Your task to perform on an android device: Clear the cart on bestbuy.com. Add razer deathadder to the cart on bestbuy.com Image 0: 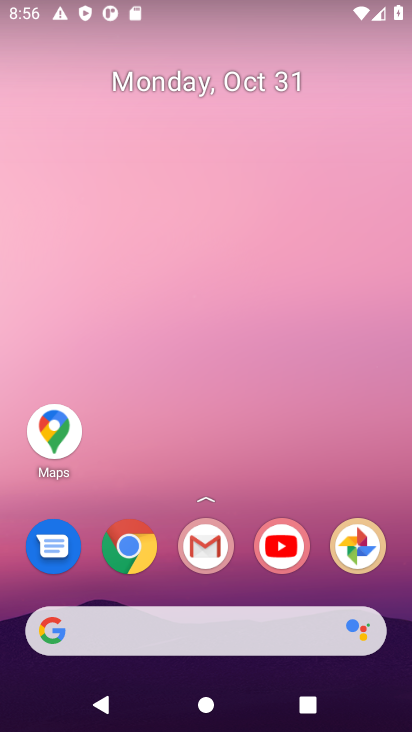
Step 0: click (128, 555)
Your task to perform on an android device: Clear the cart on bestbuy.com. Add razer deathadder to the cart on bestbuy.com Image 1: 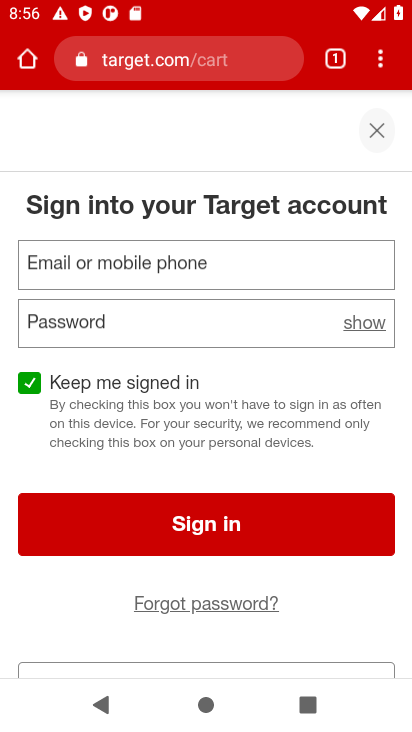
Step 1: click (165, 58)
Your task to perform on an android device: Clear the cart on bestbuy.com. Add razer deathadder to the cart on bestbuy.com Image 2: 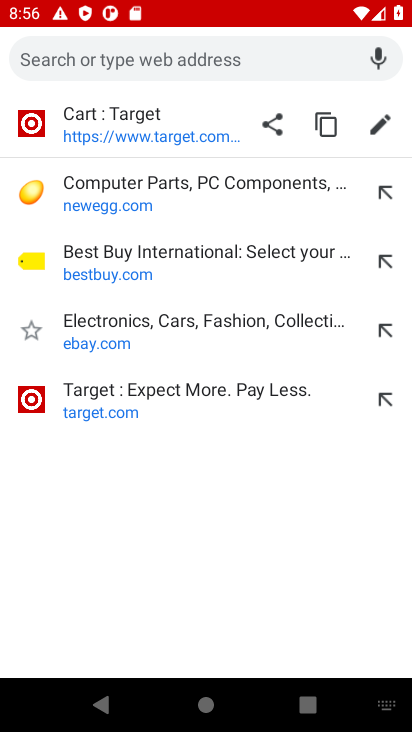
Step 2: type ""
Your task to perform on an android device: Clear the cart on bestbuy.com. Add razer deathadder to the cart on bestbuy.com Image 3: 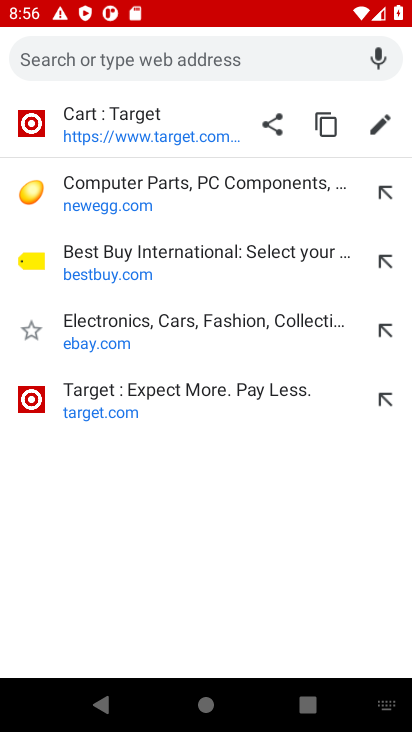
Step 3: type "bestbuy.com"
Your task to perform on an android device: Clear the cart on bestbuy.com. Add razer deathadder to the cart on bestbuy.com Image 4: 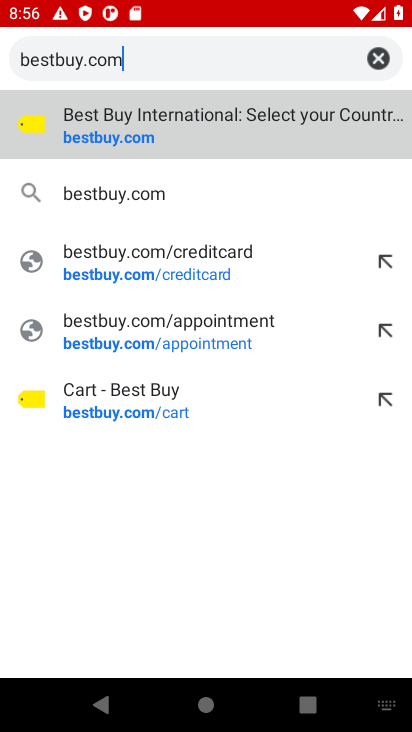
Step 4: press enter
Your task to perform on an android device: Clear the cart on bestbuy.com. Add razer deathadder to the cart on bestbuy.com Image 5: 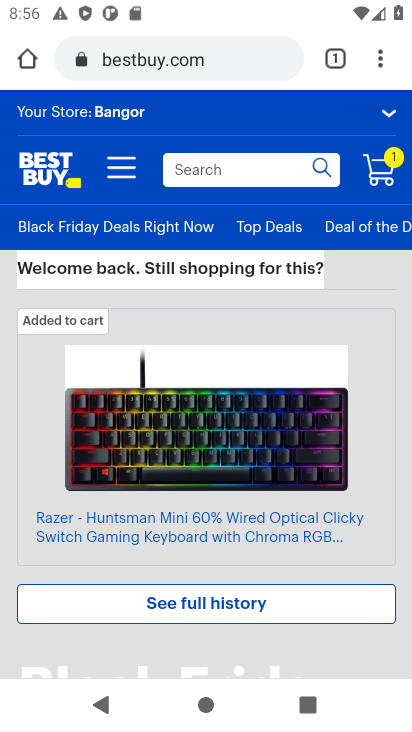
Step 5: click (380, 169)
Your task to perform on an android device: Clear the cart on bestbuy.com. Add razer deathadder to the cart on bestbuy.com Image 6: 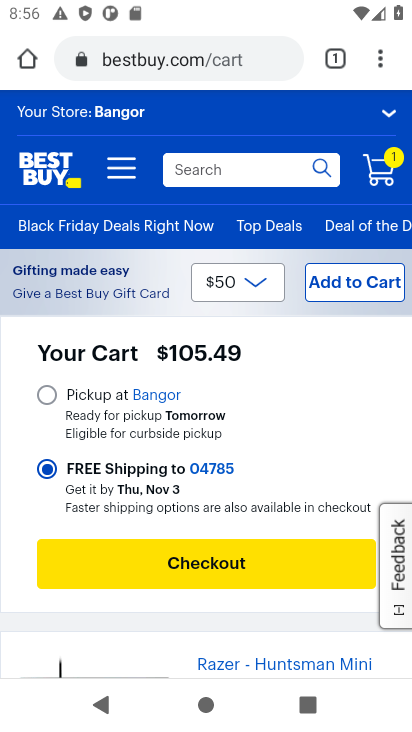
Step 6: drag from (207, 435) to (220, 147)
Your task to perform on an android device: Clear the cart on bestbuy.com. Add razer deathadder to the cart on bestbuy.com Image 7: 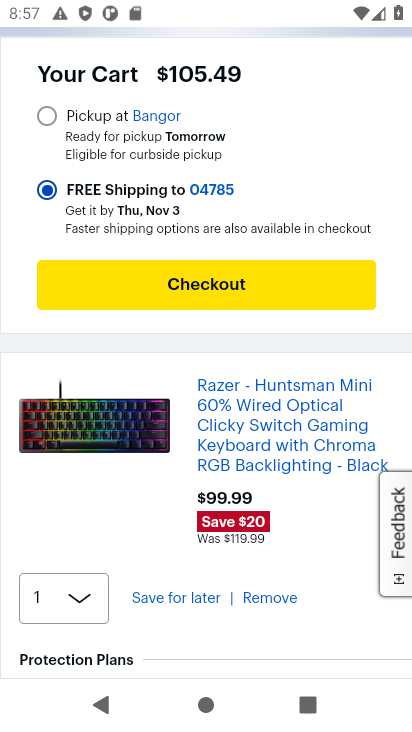
Step 7: click (268, 600)
Your task to perform on an android device: Clear the cart on bestbuy.com. Add razer deathadder to the cart on bestbuy.com Image 8: 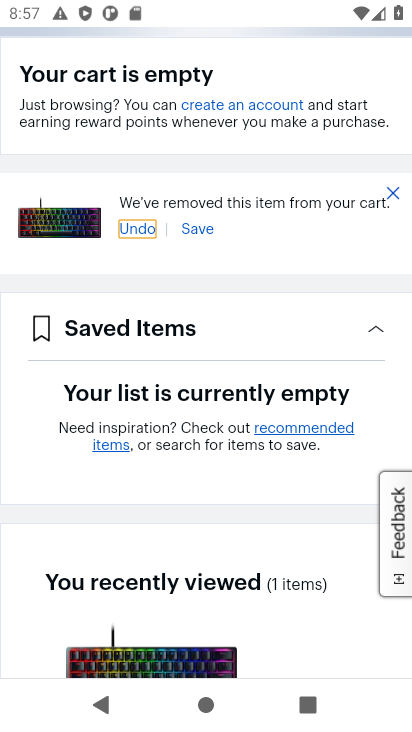
Step 8: drag from (162, 575) to (162, 669)
Your task to perform on an android device: Clear the cart on bestbuy.com. Add razer deathadder to the cart on bestbuy.com Image 9: 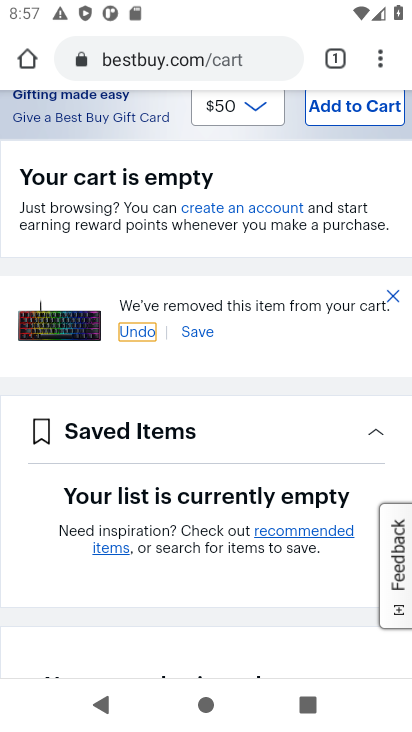
Step 9: drag from (231, 234) to (227, 467)
Your task to perform on an android device: Clear the cart on bestbuy.com. Add razer deathadder to the cart on bestbuy.com Image 10: 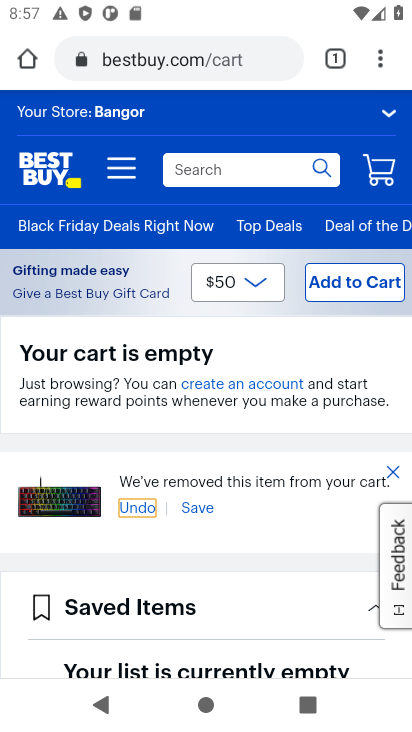
Step 10: click (217, 165)
Your task to perform on an android device: Clear the cart on bestbuy.com. Add razer deathadder to the cart on bestbuy.com Image 11: 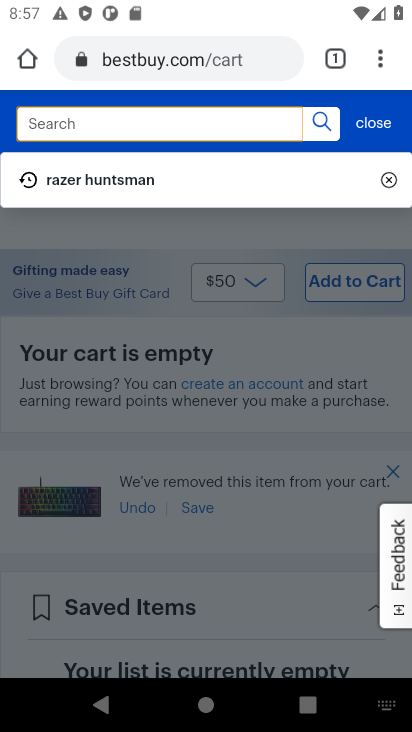
Step 11: type "razer deathadder"
Your task to perform on an android device: Clear the cart on bestbuy.com. Add razer deathadder to the cart on bestbuy.com Image 12: 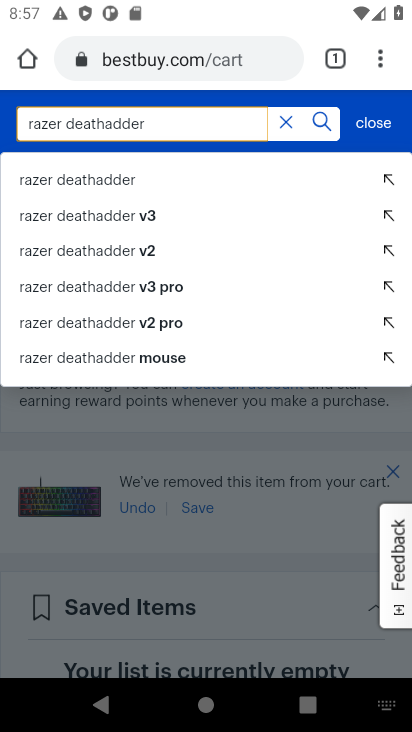
Step 12: press enter
Your task to perform on an android device: Clear the cart on bestbuy.com. Add razer deathadder to the cart on bestbuy.com Image 13: 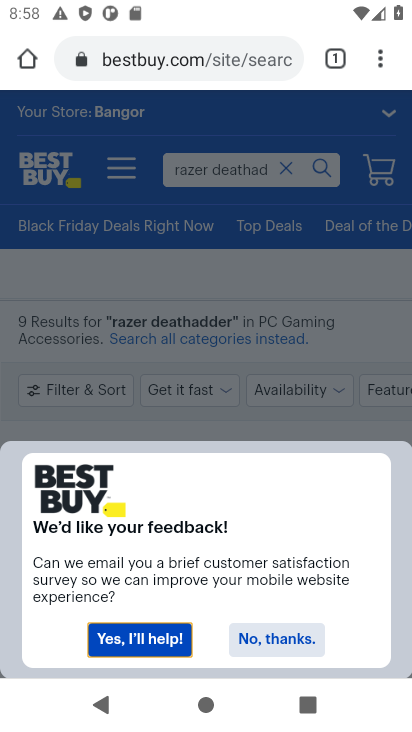
Step 13: click (278, 645)
Your task to perform on an android device: Clear the cart on bestbuy.com. Add razer deathadder to the cart on bestbuy.com Image 14: 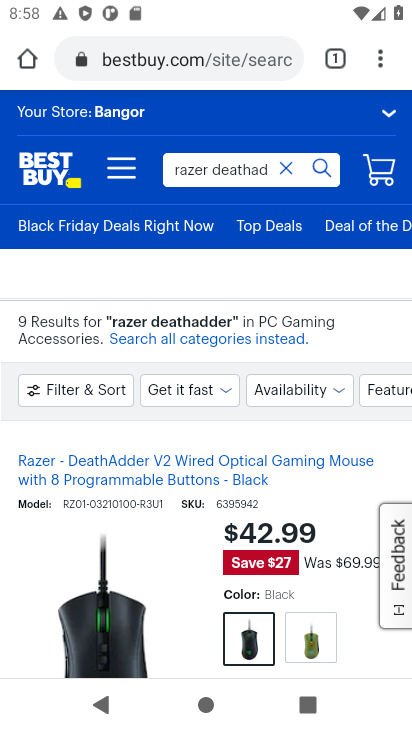
Step 14: drag from (149, 620) to (183, 360)
Your task to perform on an android device: Clear the cart on bestbuy.com. Add razer deathadder to the cart on bestbuy.com Image 15: 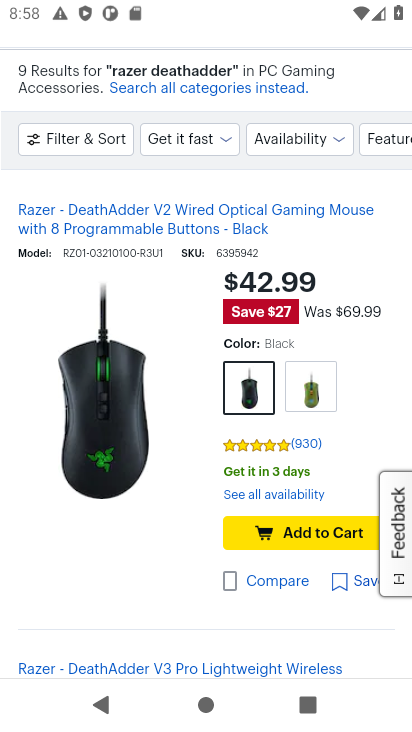
Step 15: click (276, 538)
Your task to perform on an android device: Clear the cart on bestbuy.com. Add razer deathadder to the cart on bestbuy.com Image 16: 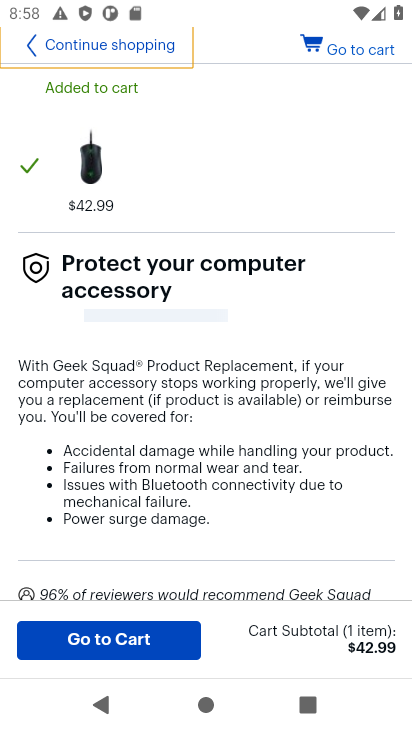
Step 16: click (104, 643)
Your task to perform on an android device: Clear the cart on bestbuy.com. Add razer deathadder to the cart on bestbuy.com Image 17: 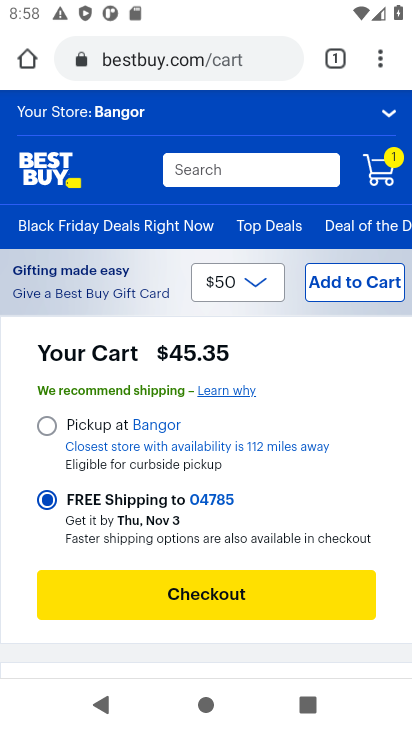
Step 17: task complete